Your task to perform on an android device: check battery use Image 0: 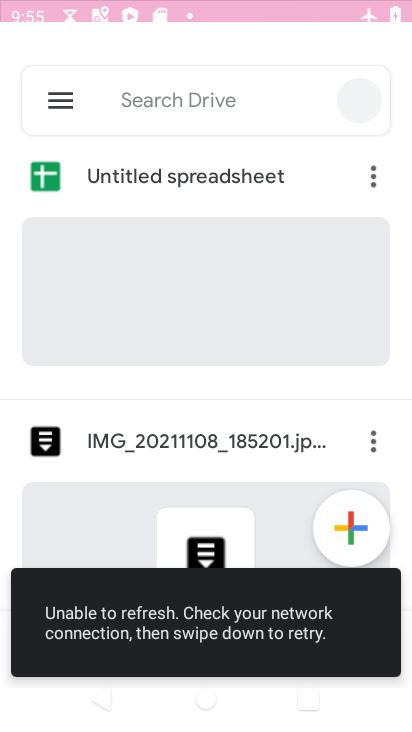
Step 0: click (332, 187)
Your task to perform on an android device: check battery use Image 1: 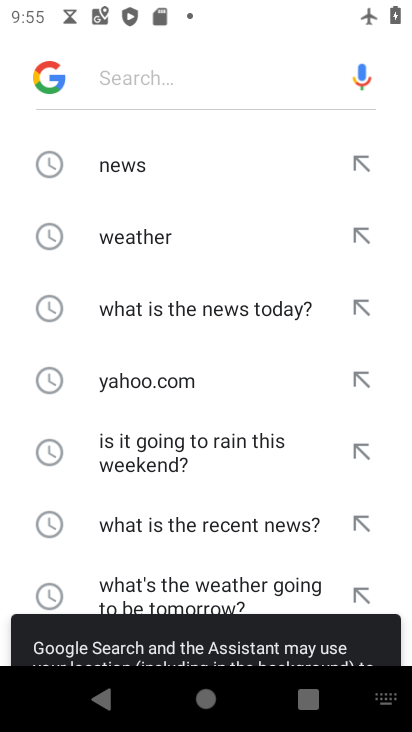
Step 1: press home button
Your task to perform on an android device: check battery use Image 2: 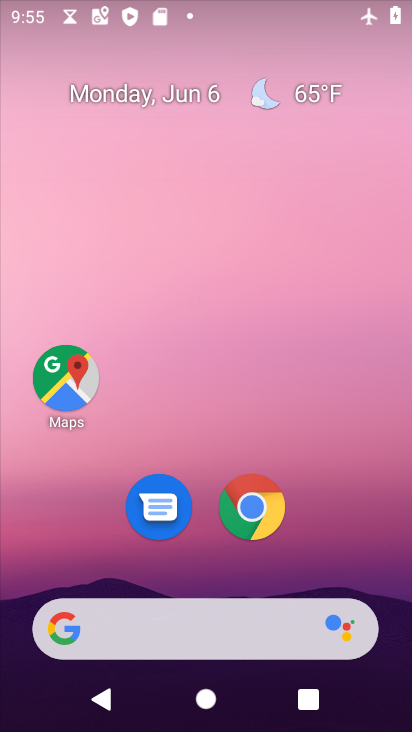
Step 2: drag from (277, 561) to (313, 277)
Your task to perform on an android device: check battery use Image 3: 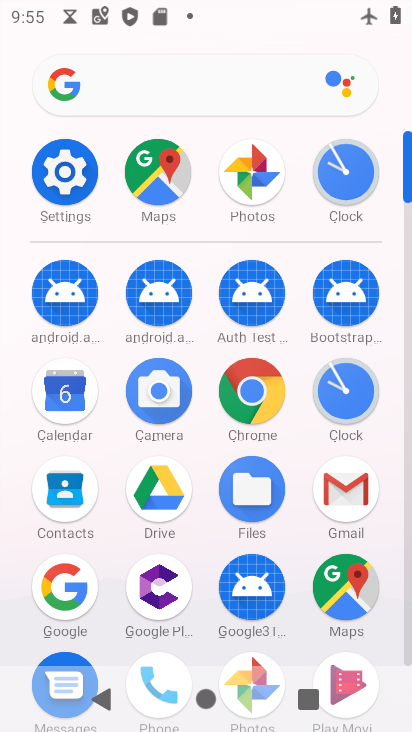
Step 3: click (49, 168)
Your task to perform on an android device: check battery use Image 4: 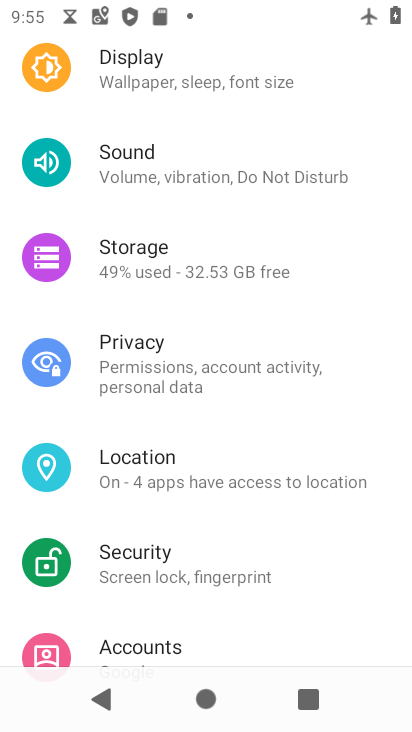
Step 4: drag from (219, 142) to (198, 540)
Your task to perform on an android device: check battery use Image 5: 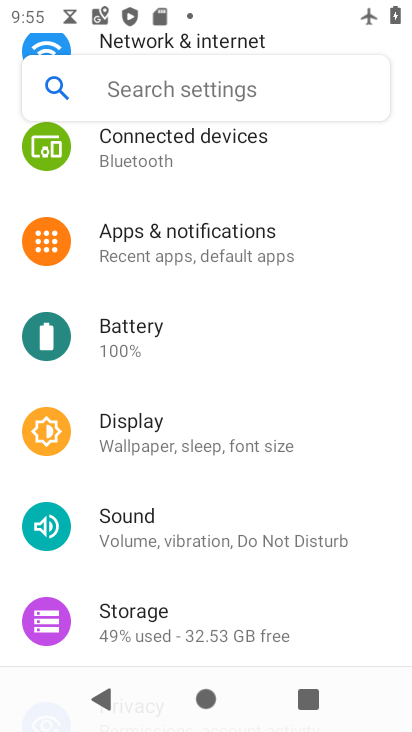
Step 5: click (145, 348)
Your task to perform on an android device: check battery use Image 6: 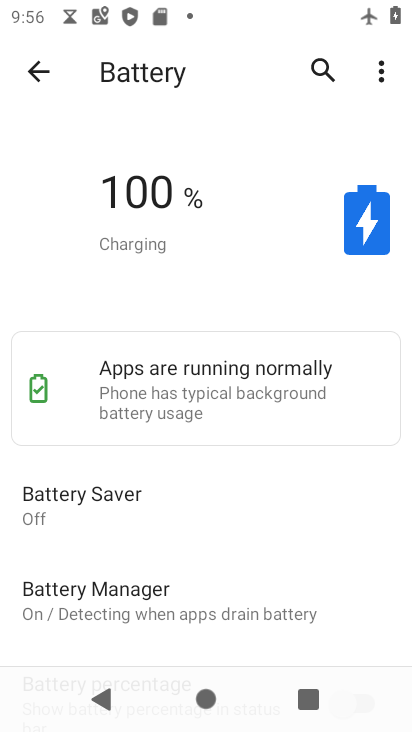
Step 6: task complete